Your task to perform on an android device: Is it going to rain tomorrow? Image 0: 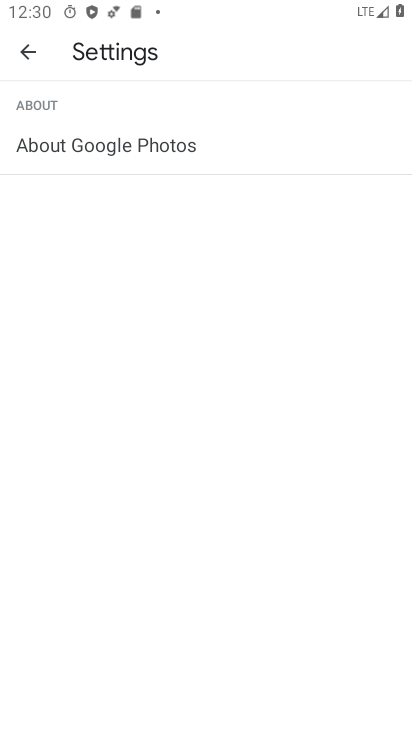
Step 0: press back button
Your task to perform on an android device: Is it going to rain tomorrow? Image 1: 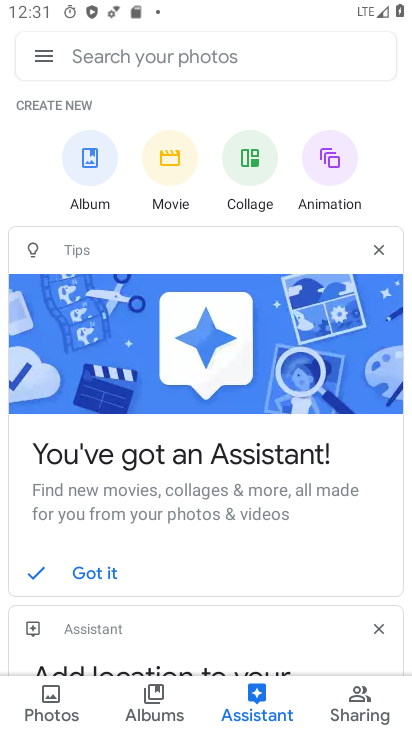
Step 1: press back button
Your task to perform on an android device: Is it going to rain tomorrow? Image 2: 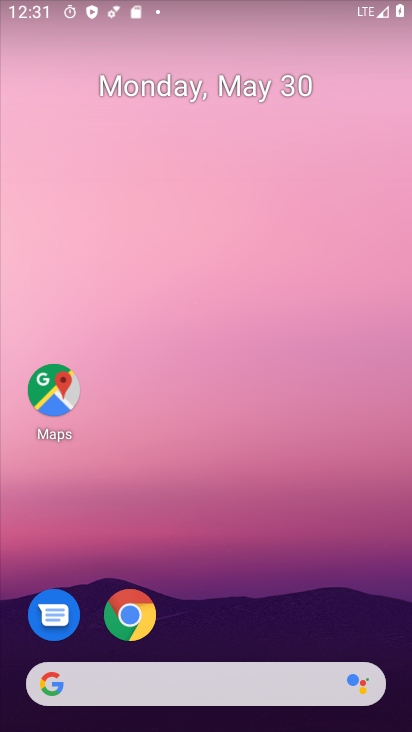
Step 2: click (207, 667)
Your task to perform on an android device: Is it going to rain tomorrow? Image 3: 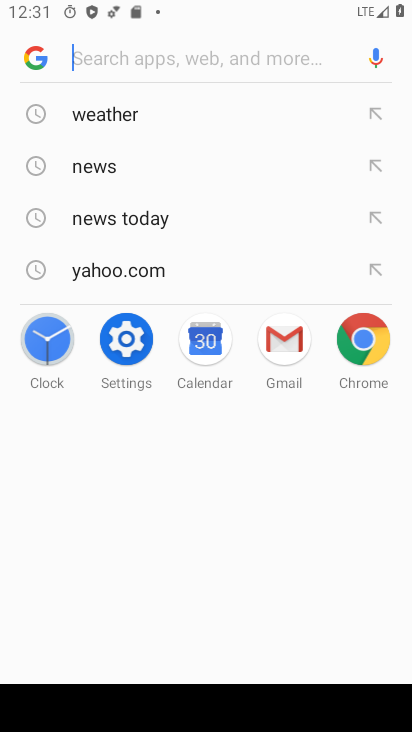
Step 3: click (94, 111)
Your task to perform on an android device: Is it going to rain tomorrow? Image 4: 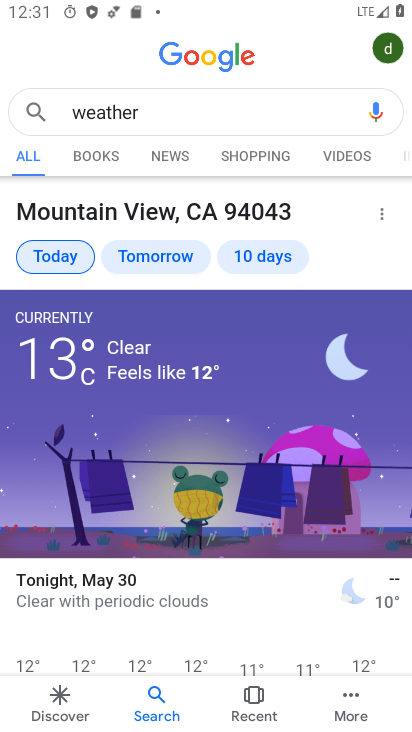
Step 4: click (160, 199)
Your task to perform on an android device: Is it going to rain tomorrow? Image 5: 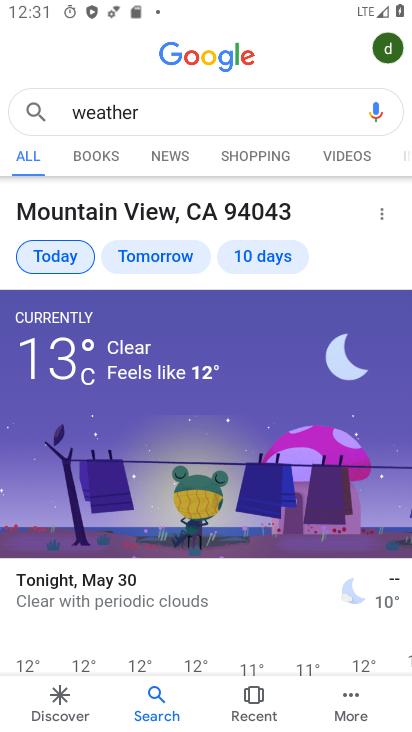
Step 5: click (156, 245)
Your task to perform on an android device: Is it going to rain tomorrow? Image 6: 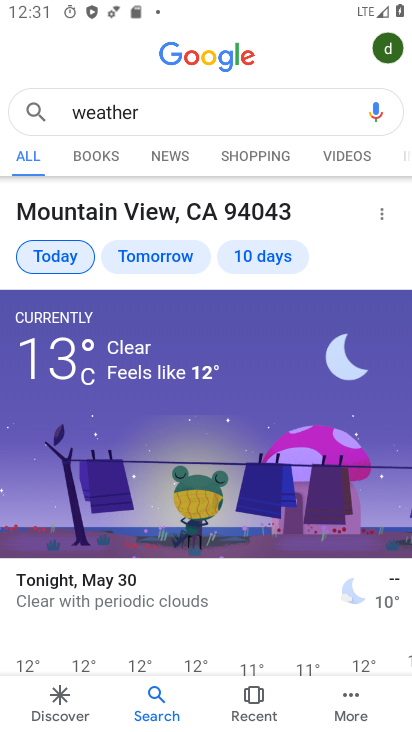
Step 6: click (154, 257)
Your task to perform on an android device: Is it going to rain tomorrow? Image 7: 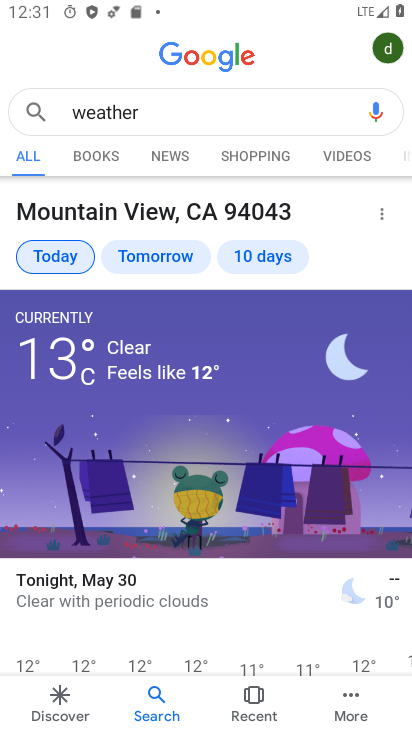
Step 7: click (154, 255)
Your task to perform on an android device: Is it going to rain tomorrow? Image 8: 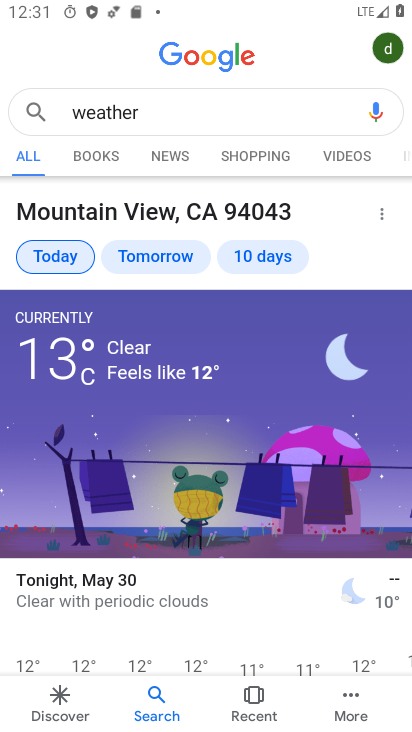
Step 8: click (150, 257)
Your task to perform on an android device: Is it going to rain tomorrow? Image 9: 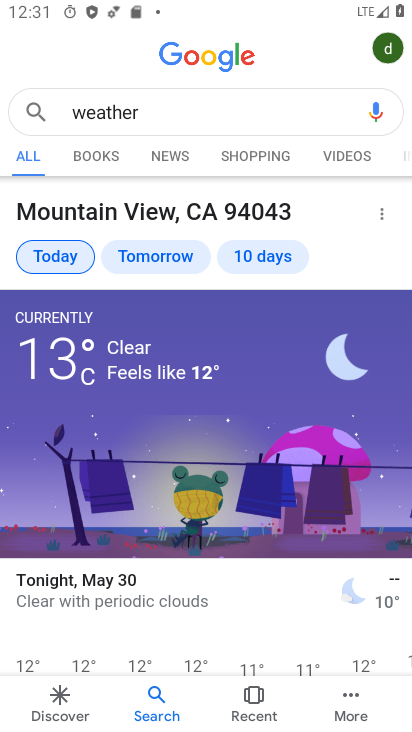
Step 9: task complete